Your task to perform on an android device: delete browsing data in the chrome app Image 0: 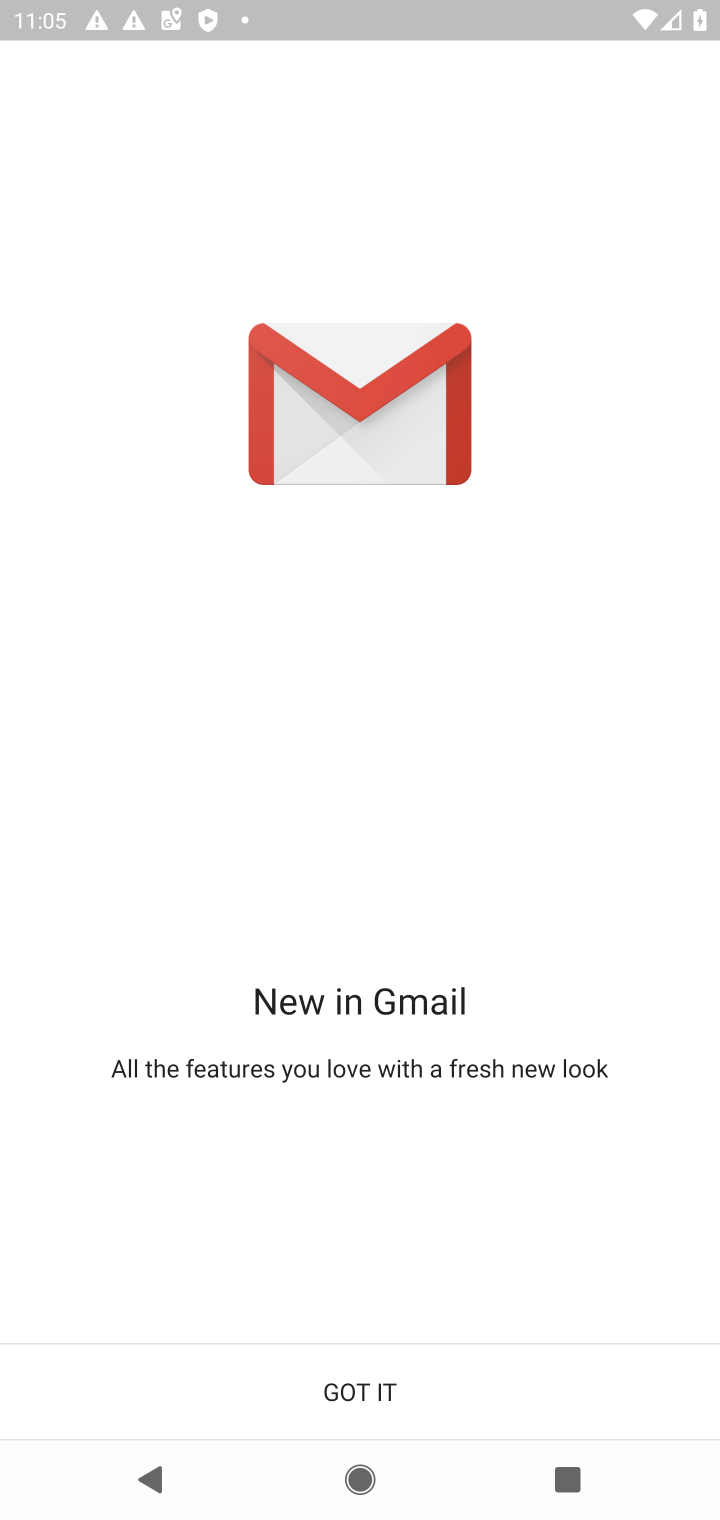
Step 0: press home button
Your task to perform on an android device: delete browsing data in the chrome app Image 1: 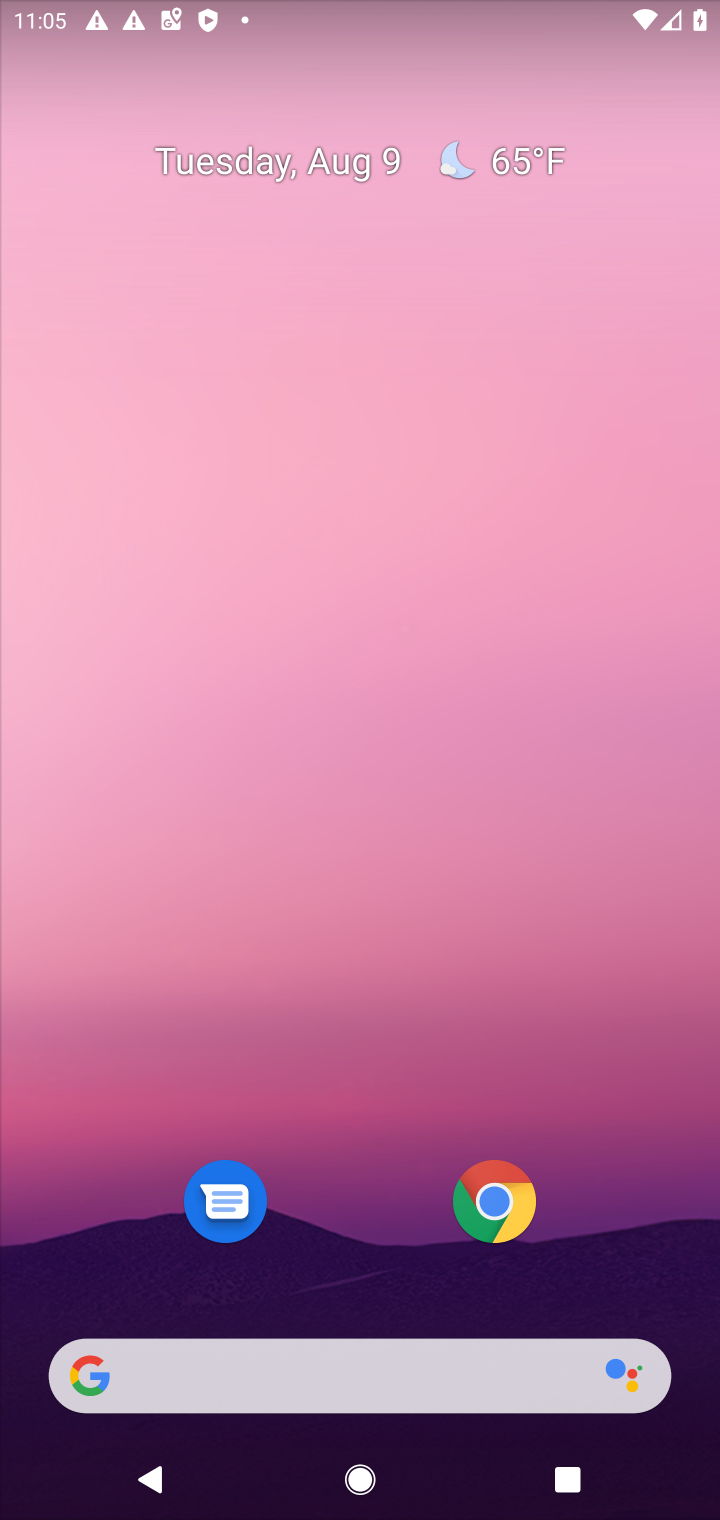
Step 1: click (510, 1203)
Your task to perform on an android device: delete browsing data in the chrome app Image 2: 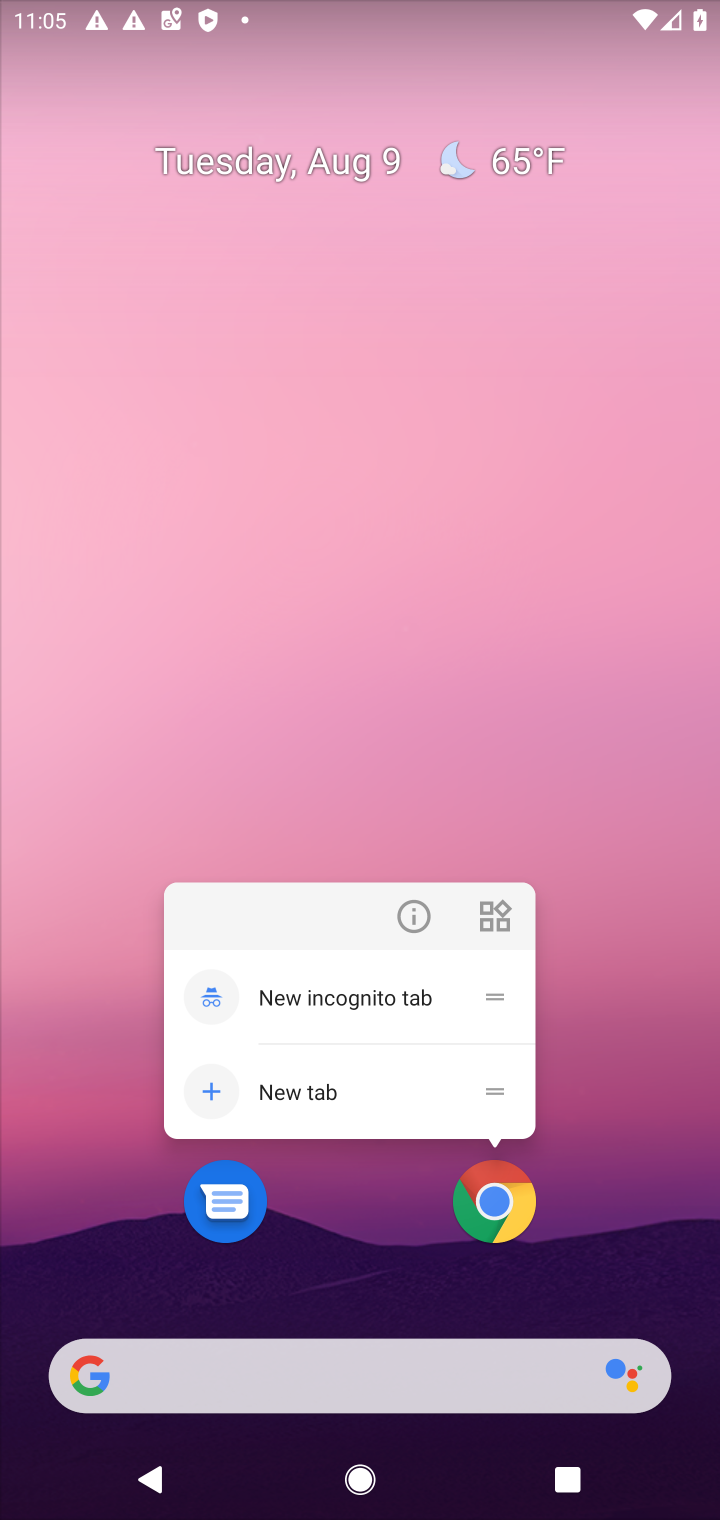
Step 2: click (487, 1204)
Your task to perform on an android device: delete browsing data in the chrome app Image 3: 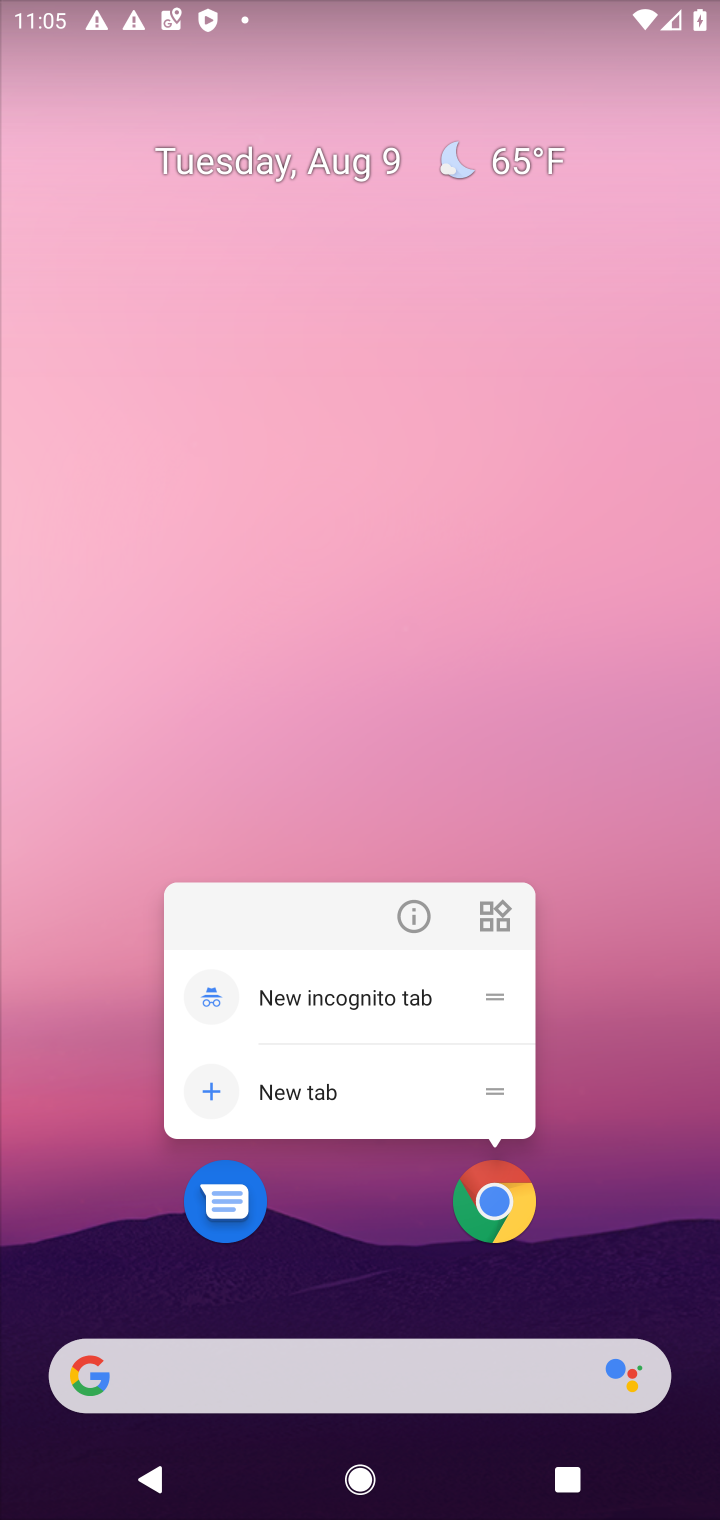
Step 3: click (462, 1208)
Your task to perform on an android device: delete browsing data in the chrome app Image 4: 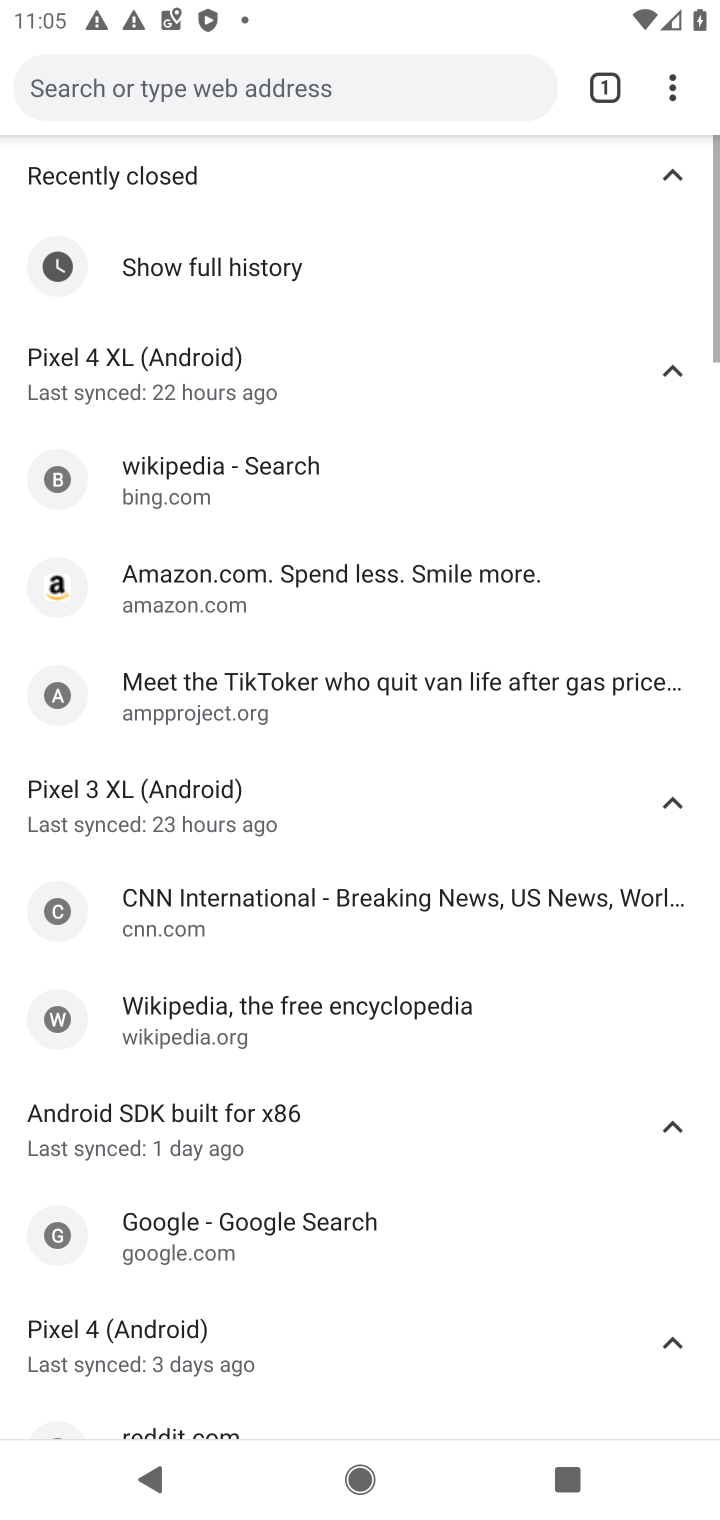
Step 4: drag from (663, 73) to (358, 735)
Your task to perform on an android device: delete browsing data in the chrome app Image 5: 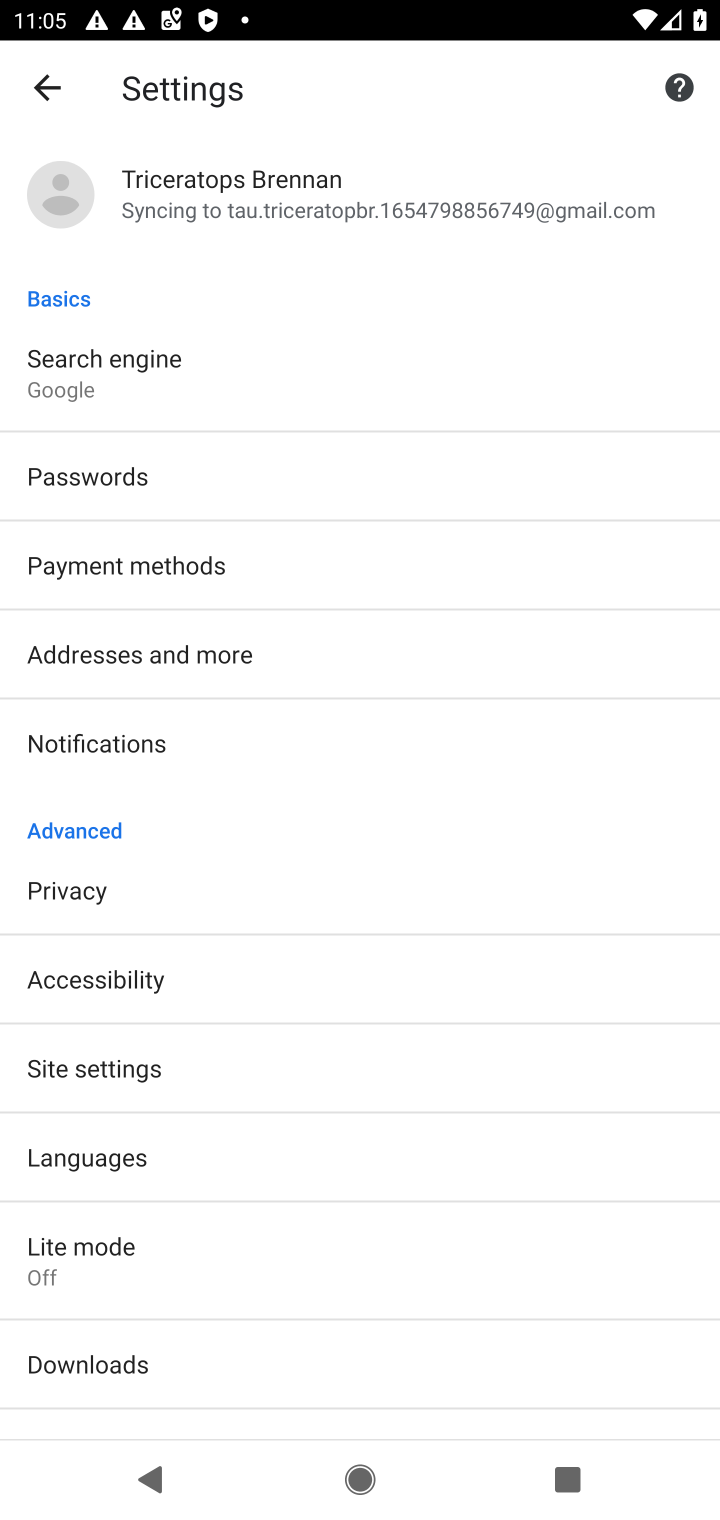
Step 5: click (123, 904)
Your task to perform on an android device: delete browsing data in the chrome app Image 6: 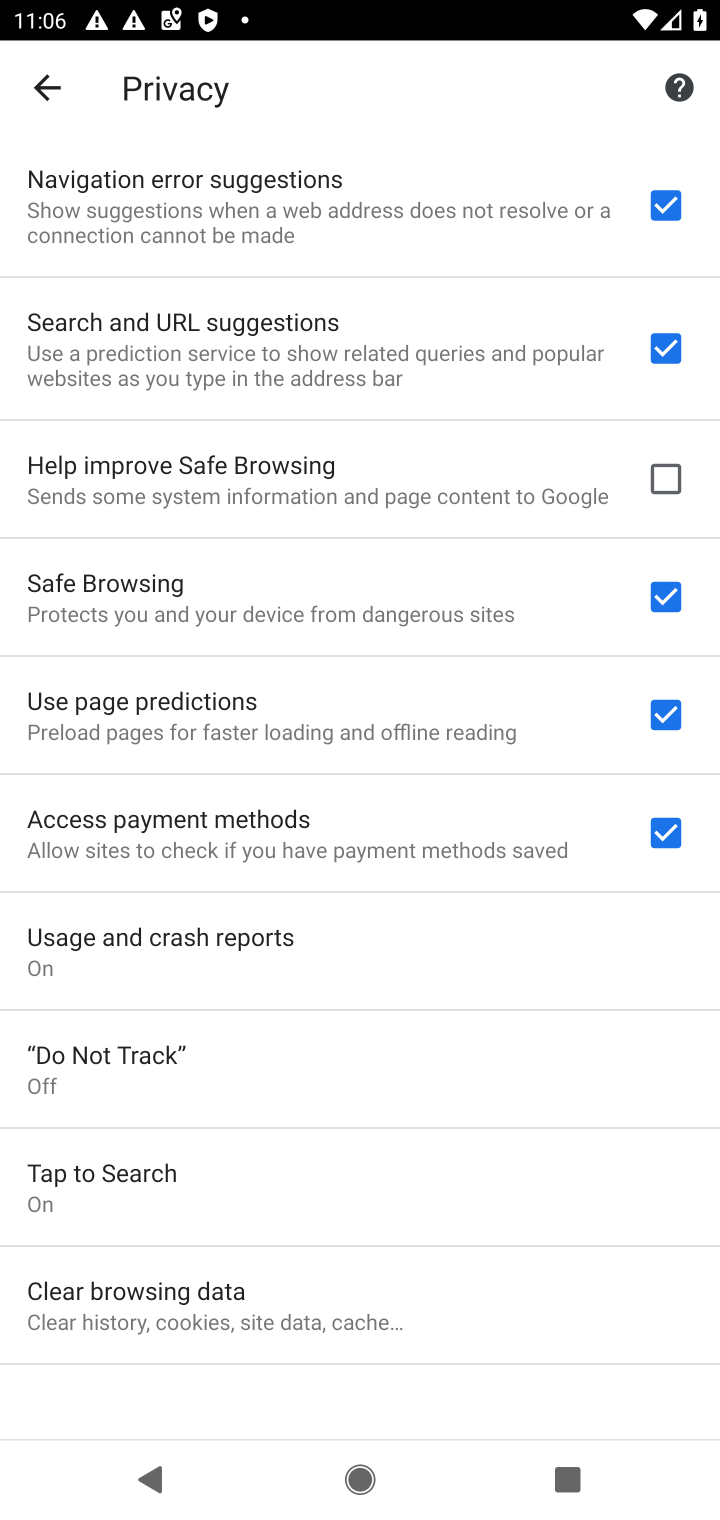
Step 6: click (187, 1258)
Your task to perform on an android device: delete browsing data in the chrome app Image 7: 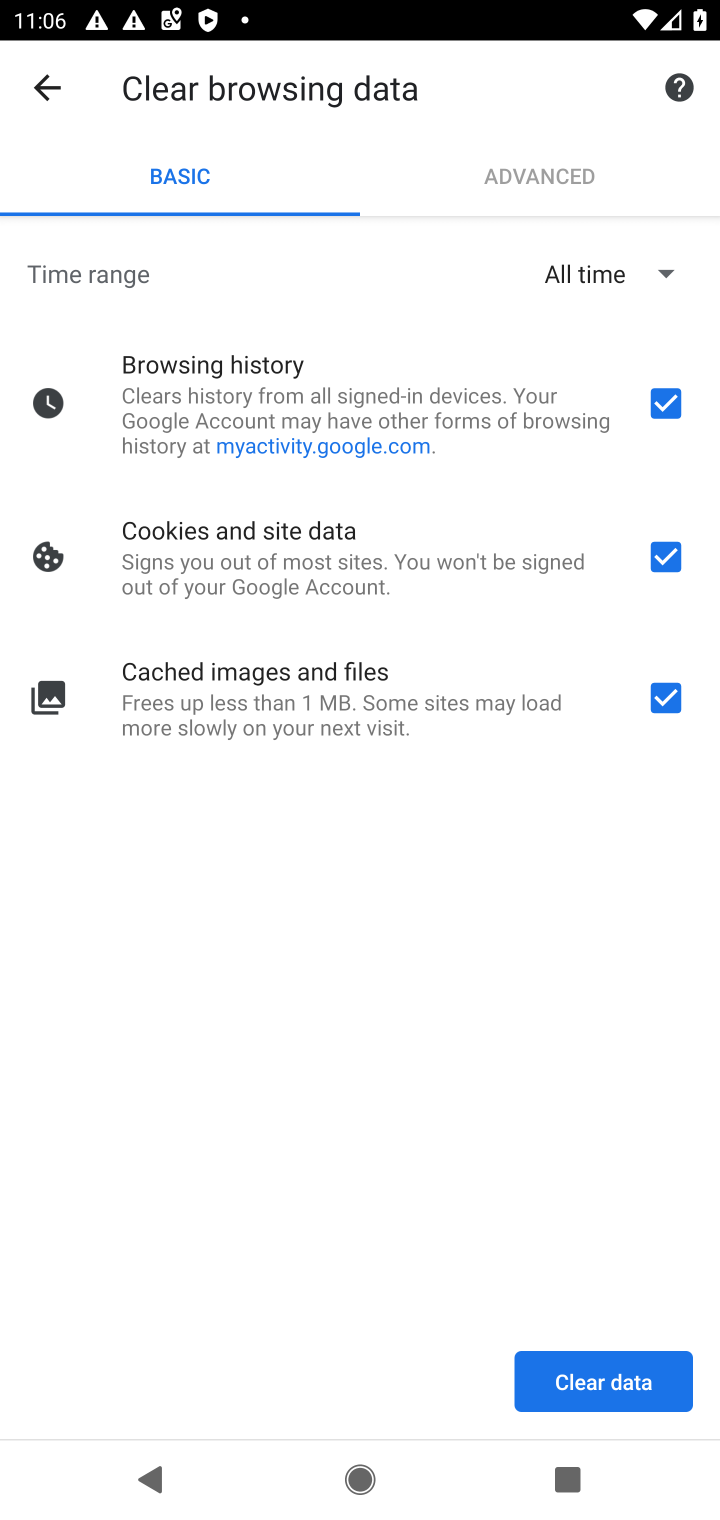
Step 7: click (666, 570)
Your task to perform on an android device: delete browsing data in the chrome app Image 8: 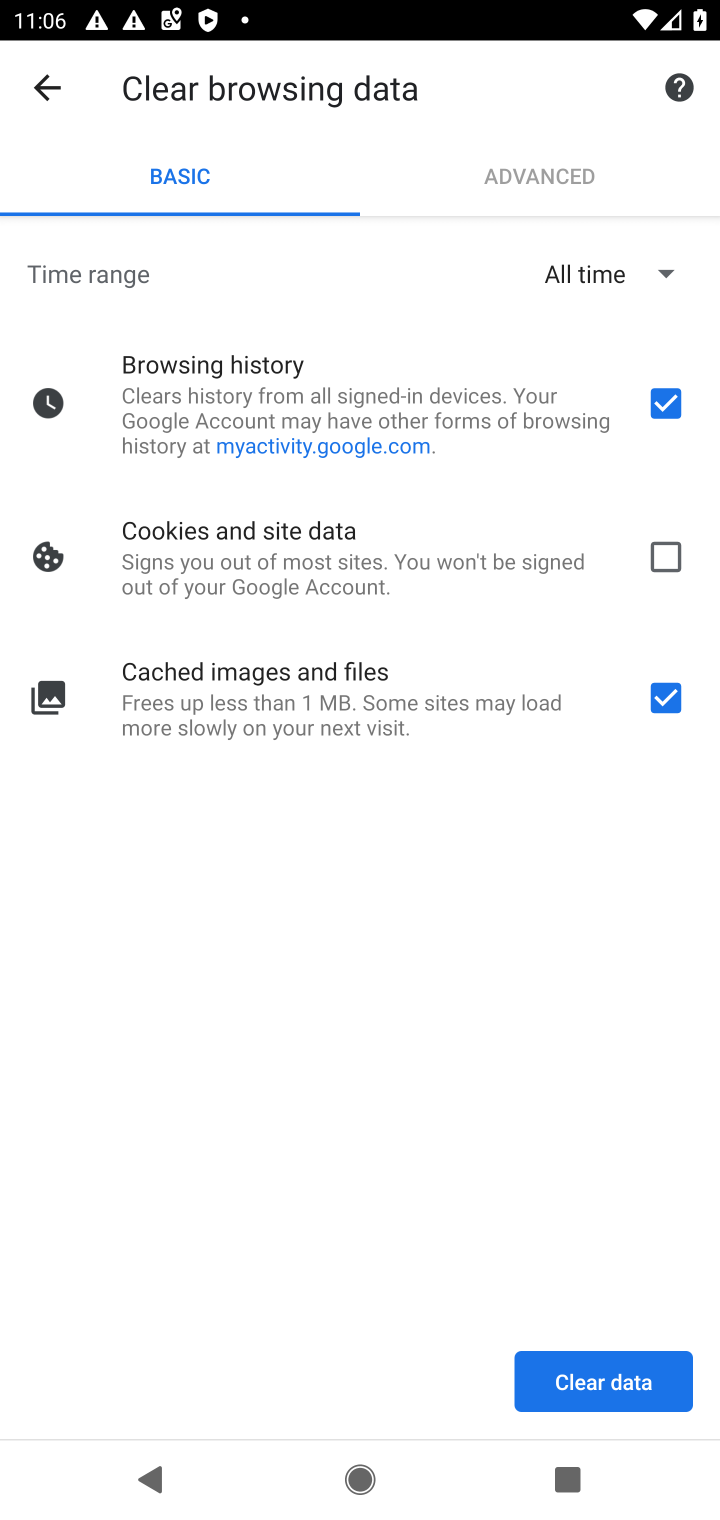
Step 8: click (663, 691)
Your task to perform on an android device: delete browsing data in the chrome app Image 9: 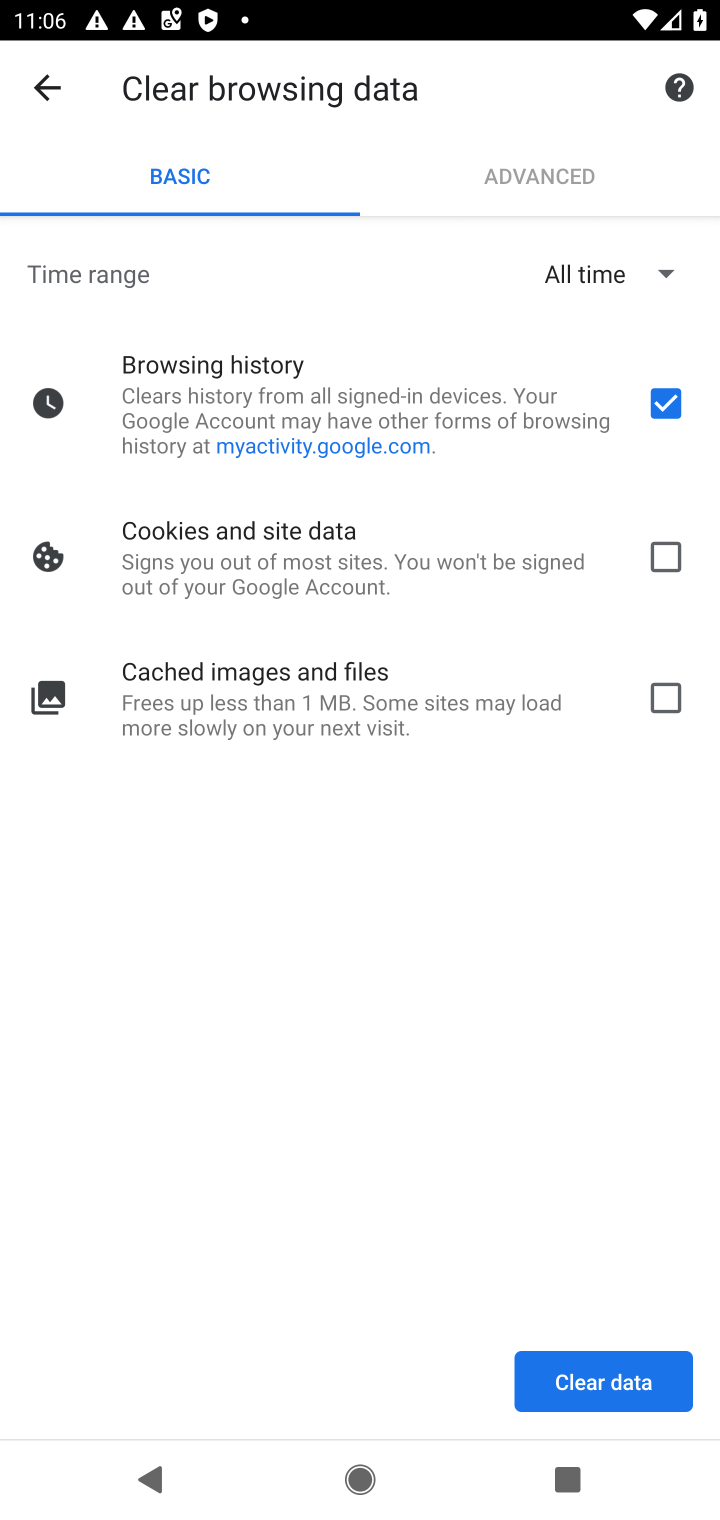
Step 9: click (596, 1371)
Your task to perform on an android device: delete browsing data in the chrome app Image 10: 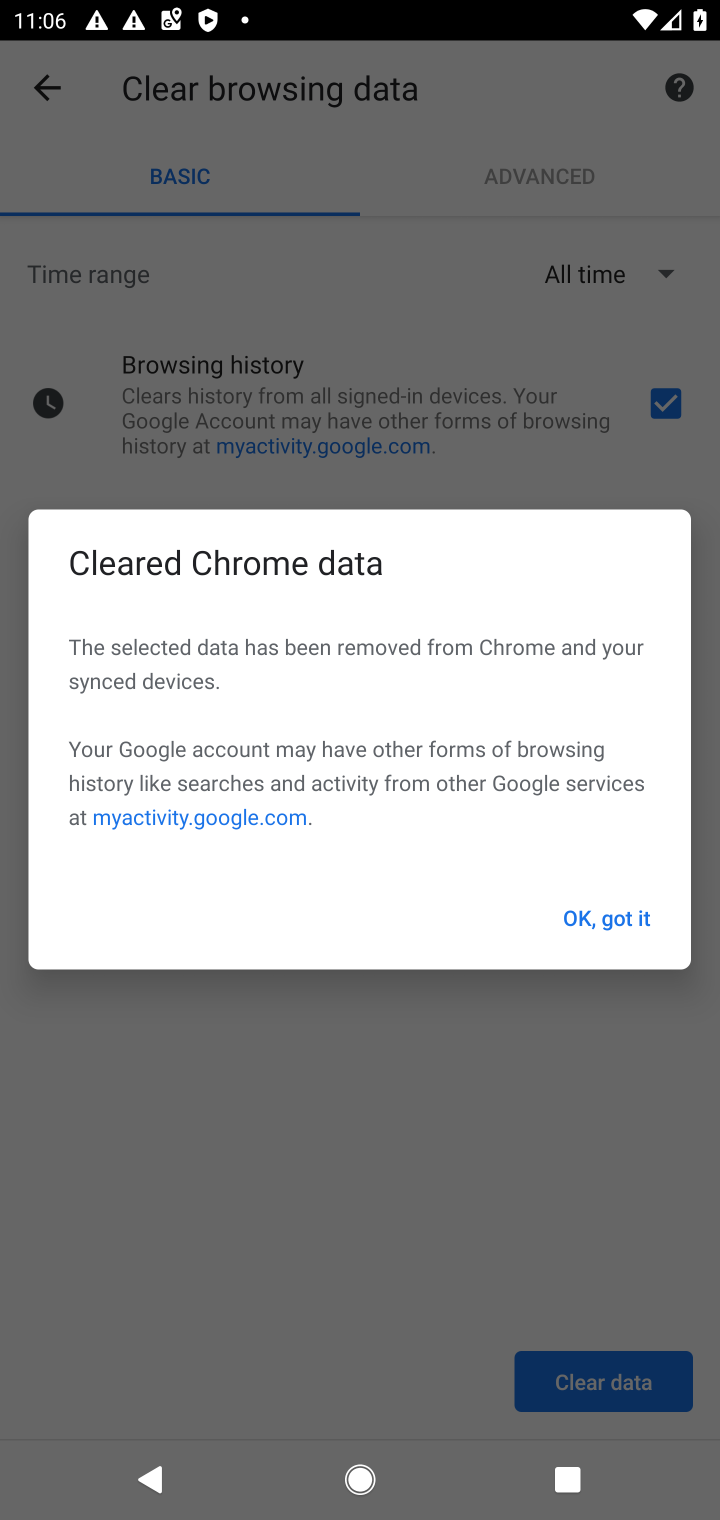
Step 10: click (608, 916)
Your task to perform on an android device: delete browsing data in the chrome app Image 11: 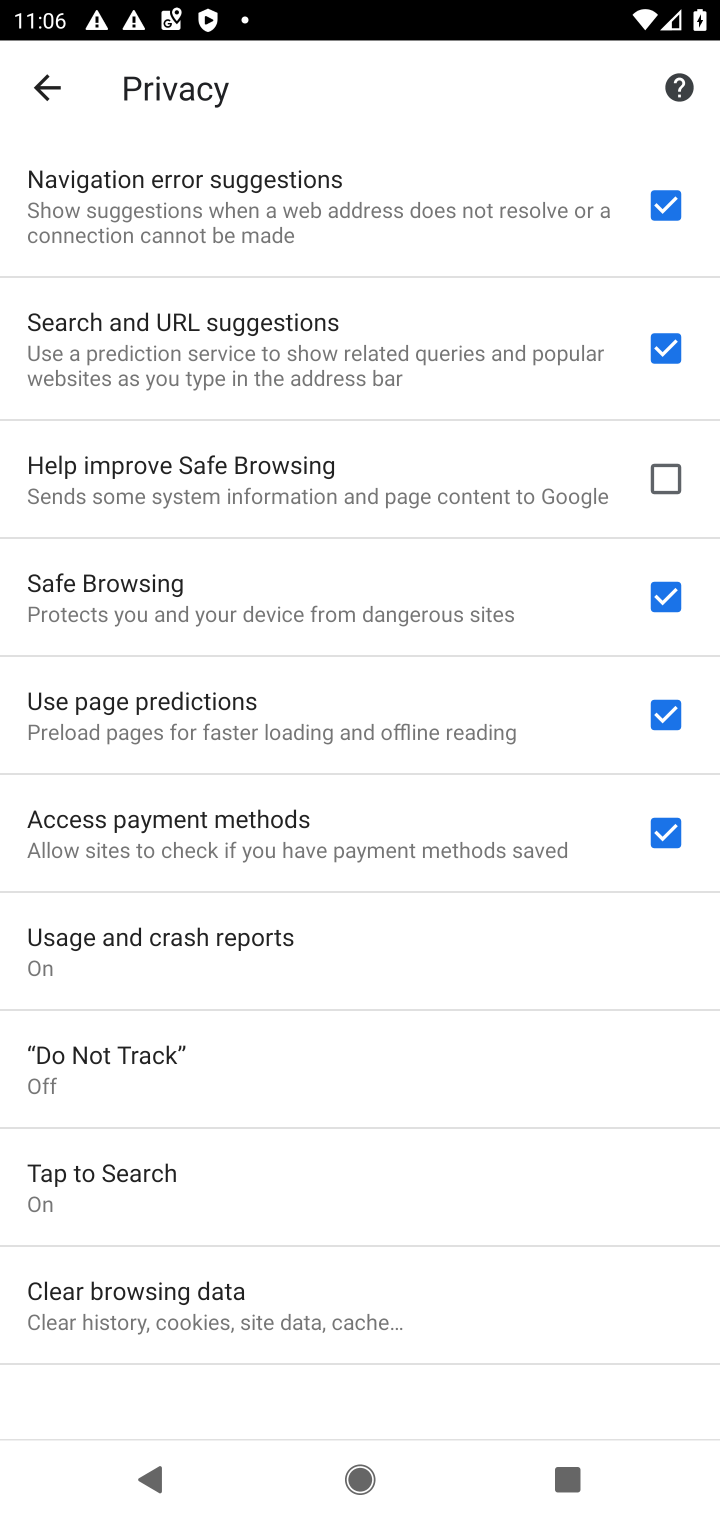
Step 11: task complete